Your task to perform on an android device: Go to network settings Image 0: 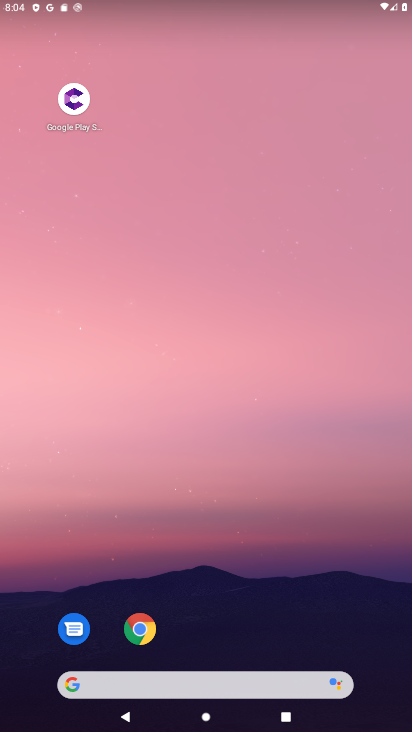
Step 0: drag from (209, 627) to (248, 146)
Your task to perform on an android device: Go to network settings Image 1: 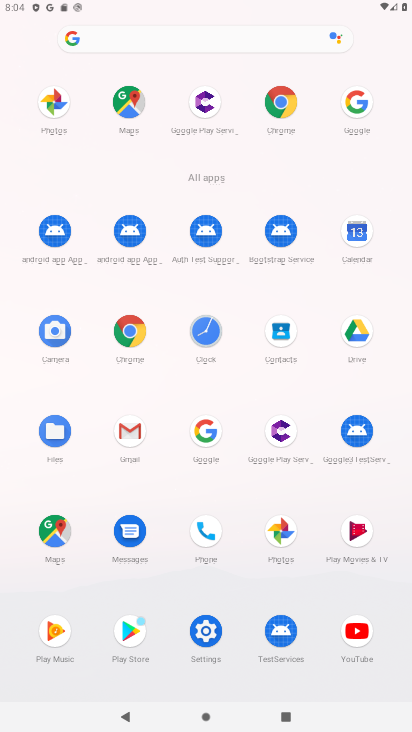
Step 1: click (203, 636)
Your task to perform on an android device: Go to network settings Image 2: 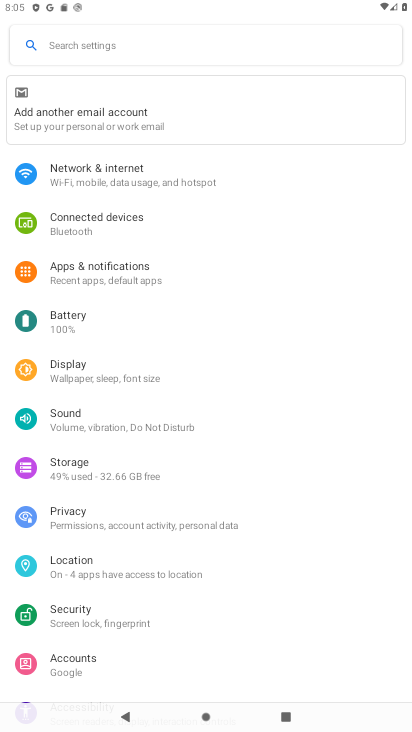
Step 2: drag from (115, 617) to (153, 421)
Your task to perform on an android device: Go to network settings Image 3: 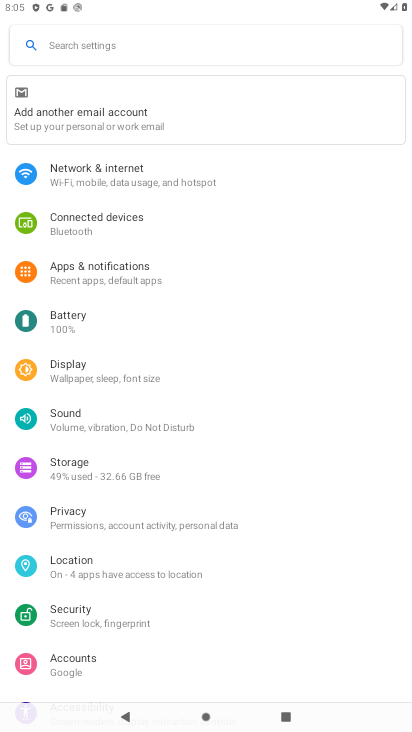
Step 3: click (110, 175)
Your task to perform on an android device: Go to network settings Image 4: 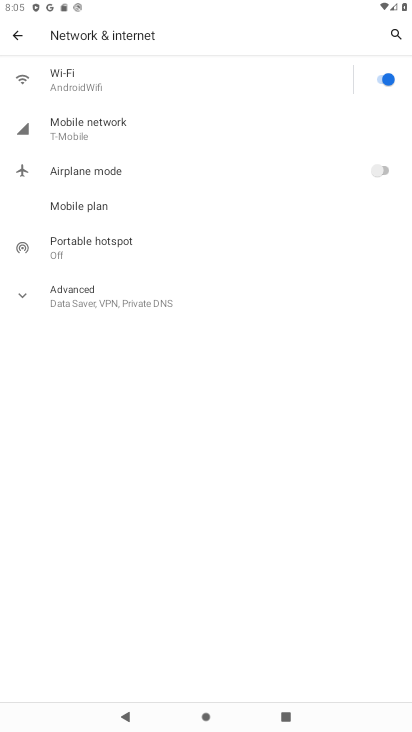
Step 4: click (98, 129)
Your task to perform on an android device: Go to network settings Image 5: 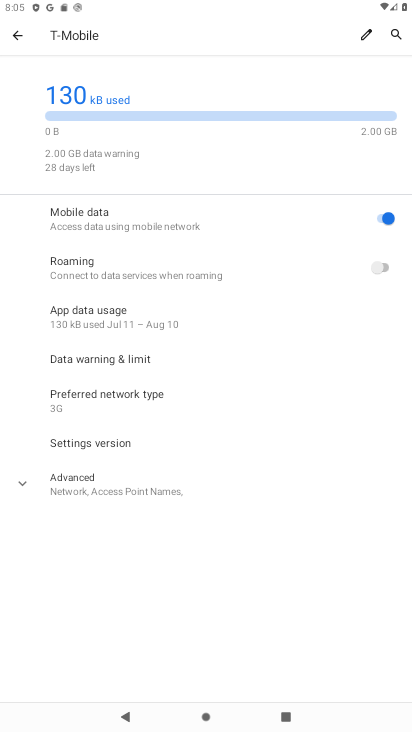
Step 5: task complete